Your task to perform on an android device: What's on my calendar tomorrow? Image 0: 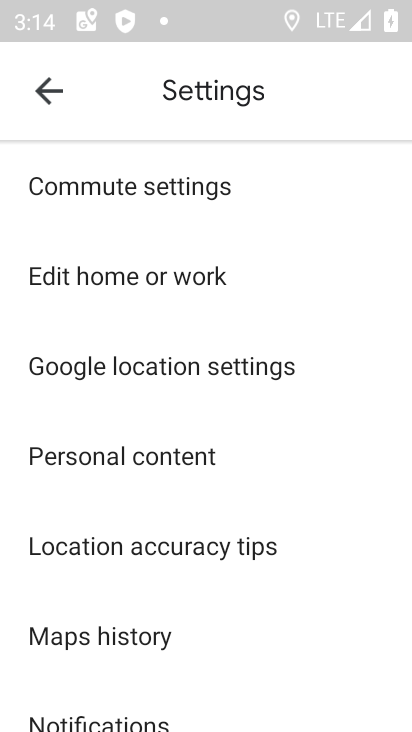
Step 0: press back button
Your task to perform on an android device: What's on my calendar tomorrow? Image 1: 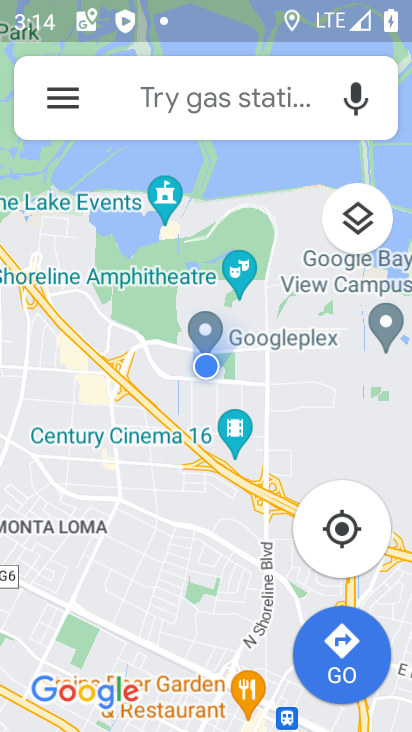
Step 1: press back button
Your task to perform on an android device: What's on my calendar tomorrow? Image 2: 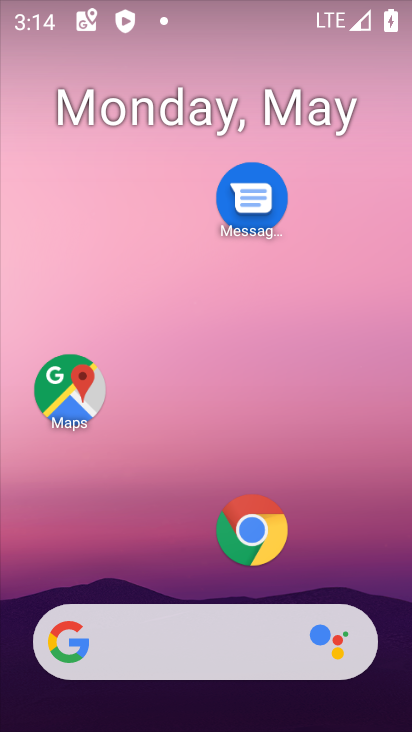
Step 2: drag from (152, 595) to (219, 95)
Your task to perform on an android device: What's on my calendar tomorrow? Image 3: 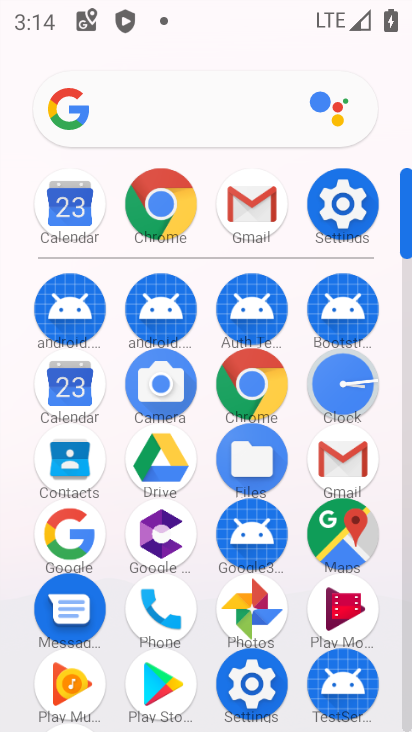
Step 3: click (64, 390)
Your task to perform on an android device: What's on my calendar tomorrow? Image 4: 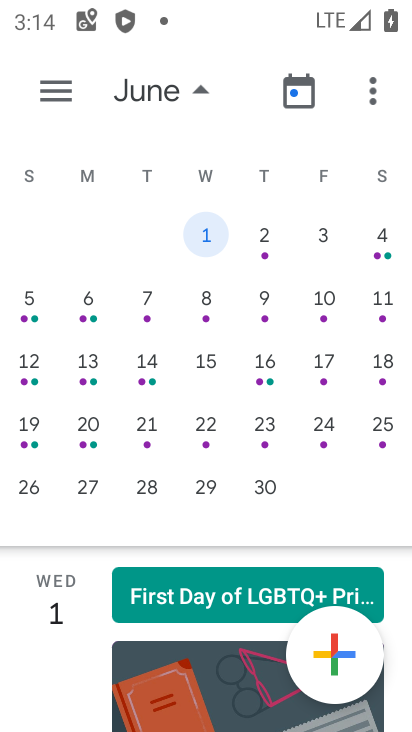
Step 4: drag from (15, 354) to (3, 401)
Your task to perform on an android device: What's on my calendar tomorrow? Image 5: 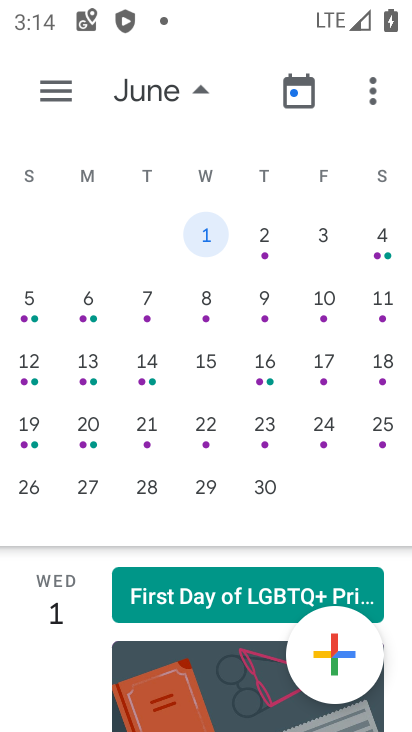
Step 5: drag from (80, 366) to (347, 381)
Your task to perform on an android device: What's on my calendar tomorrow? Image 6: 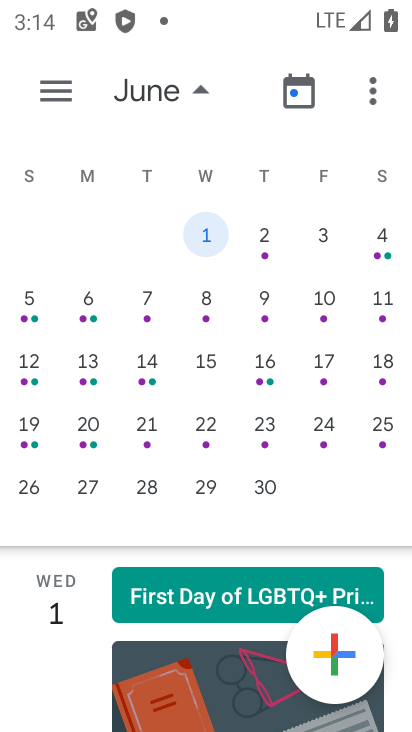
Step 6: drag from (22, 393) to (369, 402)
Your task to perform on an android device: What's on my calendar tomorrow? Image 7: 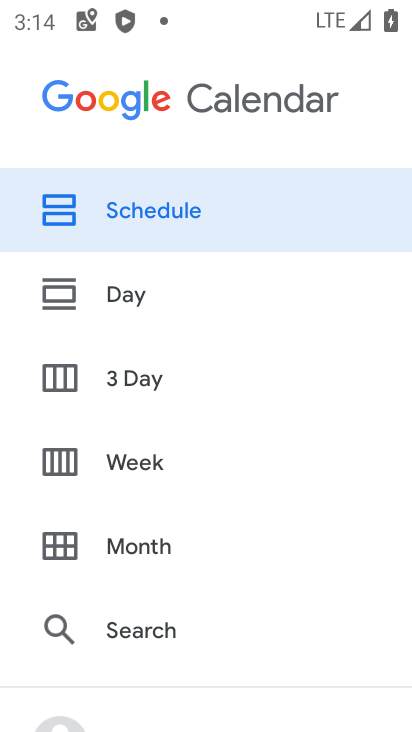
Step 7: drag from (370, 402) to (77, 388)
Your task to perform on an android device: What's on my calendar tomorrow? Image 8: 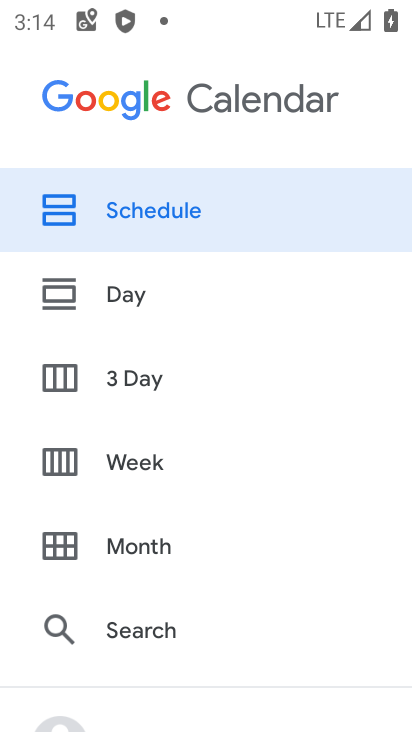
Step 8: drag from (410, 362) to (0, 397)
Your task to perform on an android device: What's on my calendar tomorrow? Image 9: 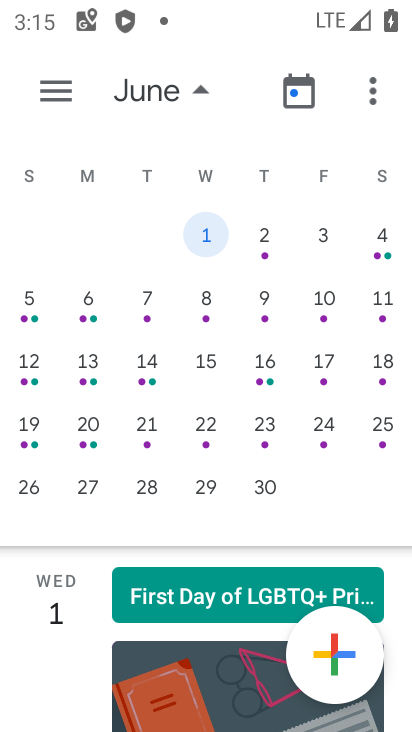
Step 9: drag from (136, 400) to (363, 394)
Your task to perform on an android device: What's on my calendar tomorrow? Image 10: 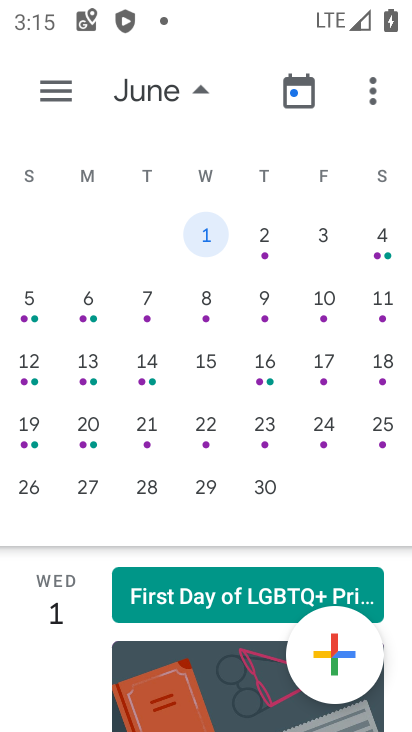
Step 10: drag from (71, 356) to (402, 342)
Your task to perform on an android device: What's on my calendar tomorrow? Image 11: 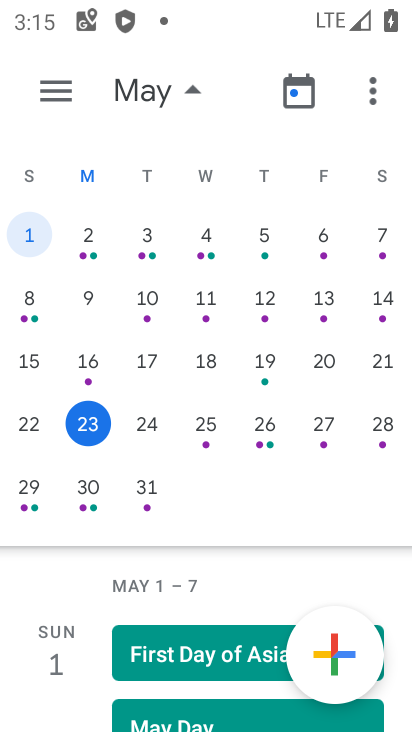
Step 11: click (75, 435)
Your task to perform on an android device: What's on my calendar tomorrow? Image 12: 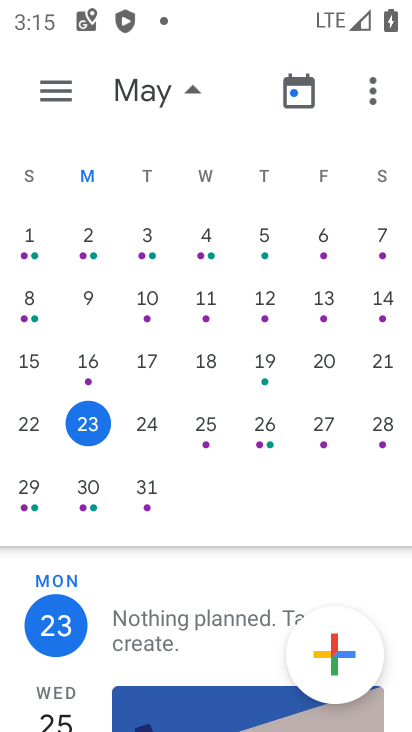
Step 12: task complete